Your task to perform on an android device: Go to settings Image 0: 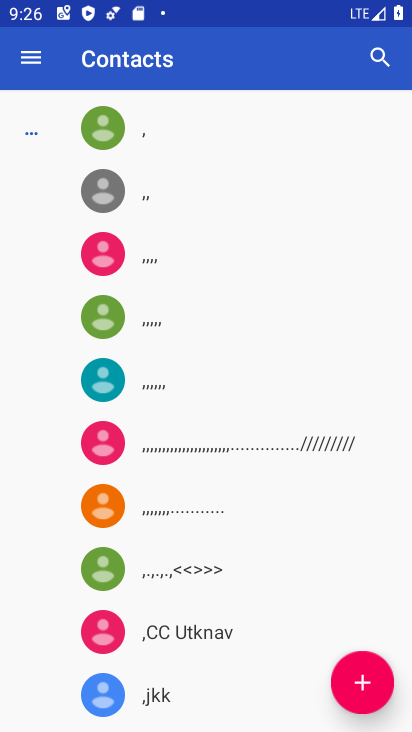
Step 0: press home button
Your task to perform on an android device: Go to settings Image 1: 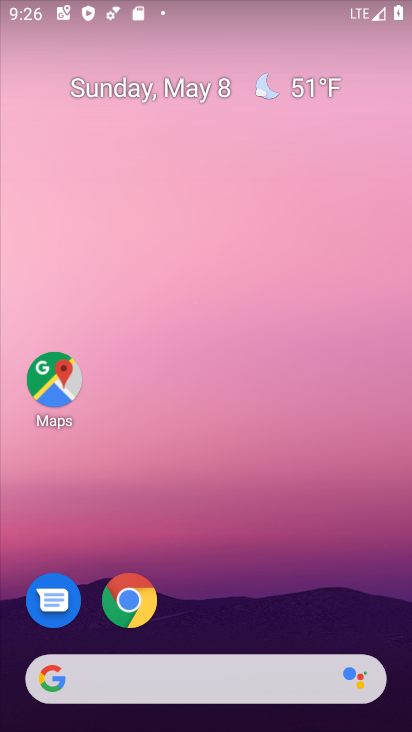
Step 1: drag from (276, 634) to (207, 9)
Your task to perform on an android device: Go to settings Image 2: 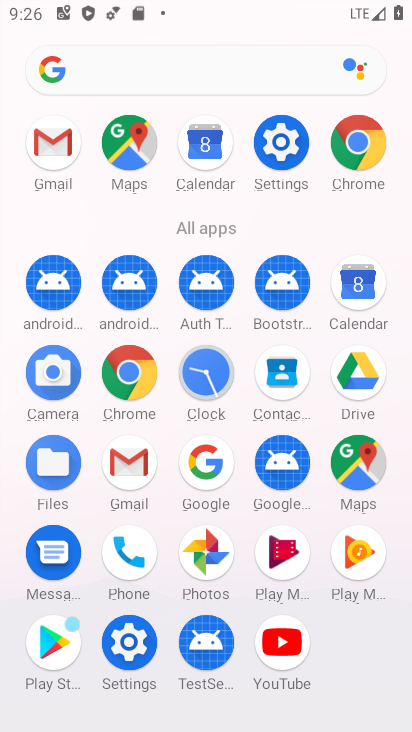
Step 2: click (296, 147)
Your task to perform on an android device: Go to settings Image 3: 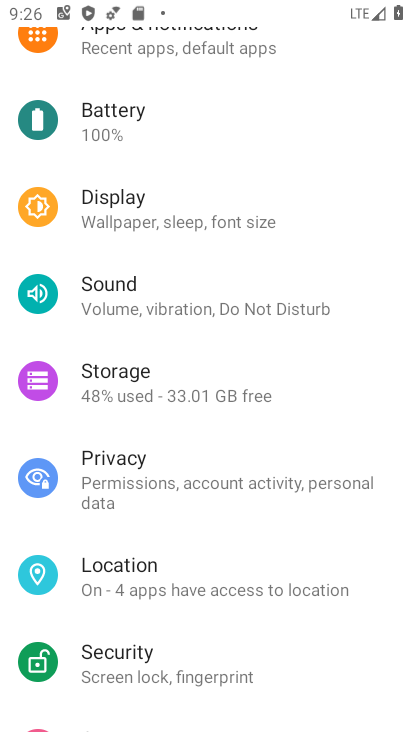
Step 3: task complete